Your task to perform on an android device: uninstall "Lyft - Rideshare, Bikes, Scooters & Transit" Image 0: 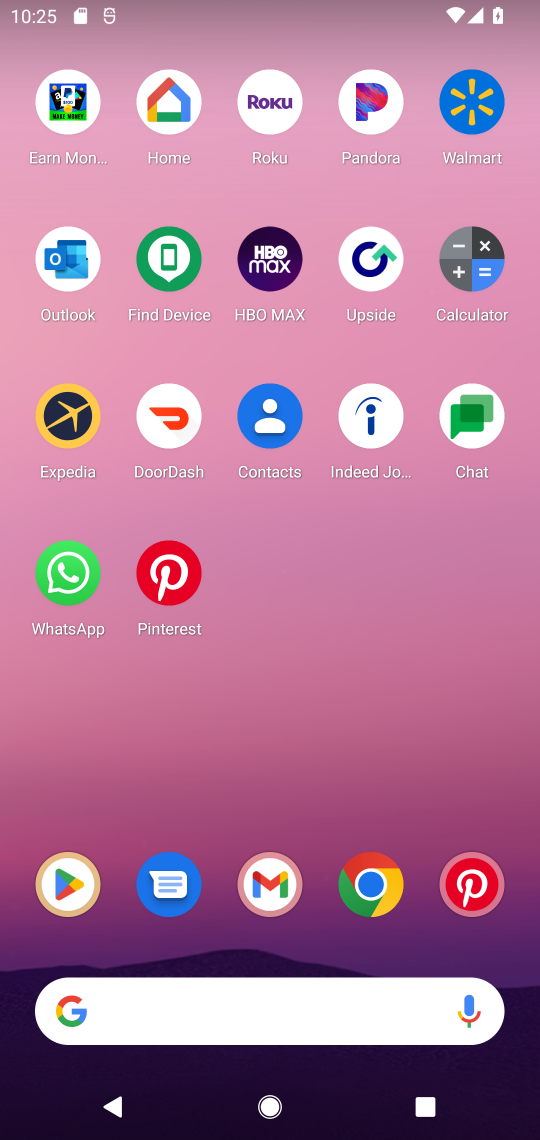
Step 0: click (66, 883)
Your task to perform on an android device: uninstall "Lyft - Rideshare, Bikes, Scooters & Transit" Image 1: 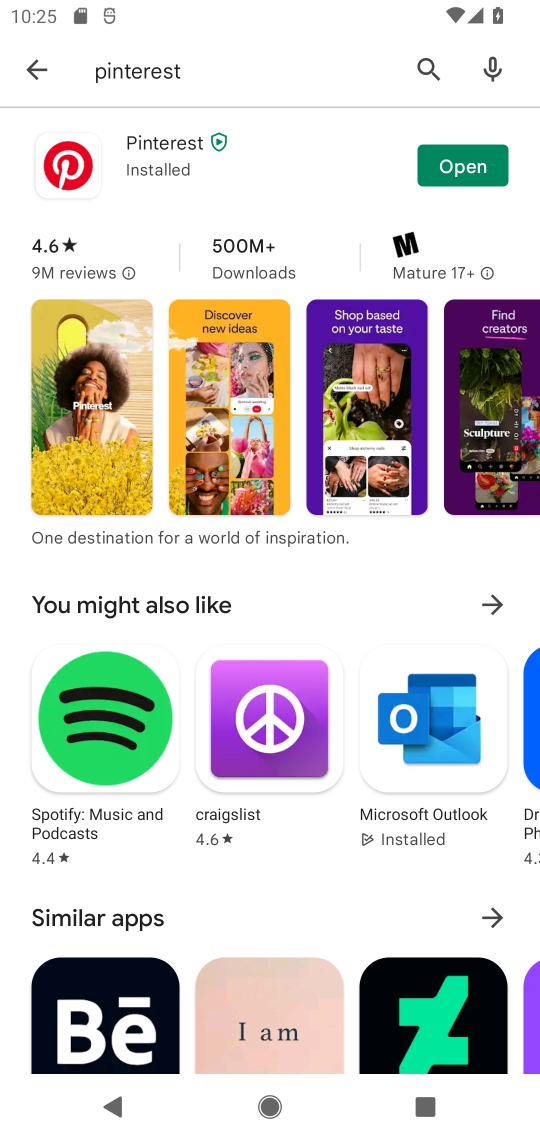
Step 1: click (236, 22)
Your task to perform on an android device: uninstall "Lyft - Rideshare, Bikes, Scooters & Transit" Image 2: 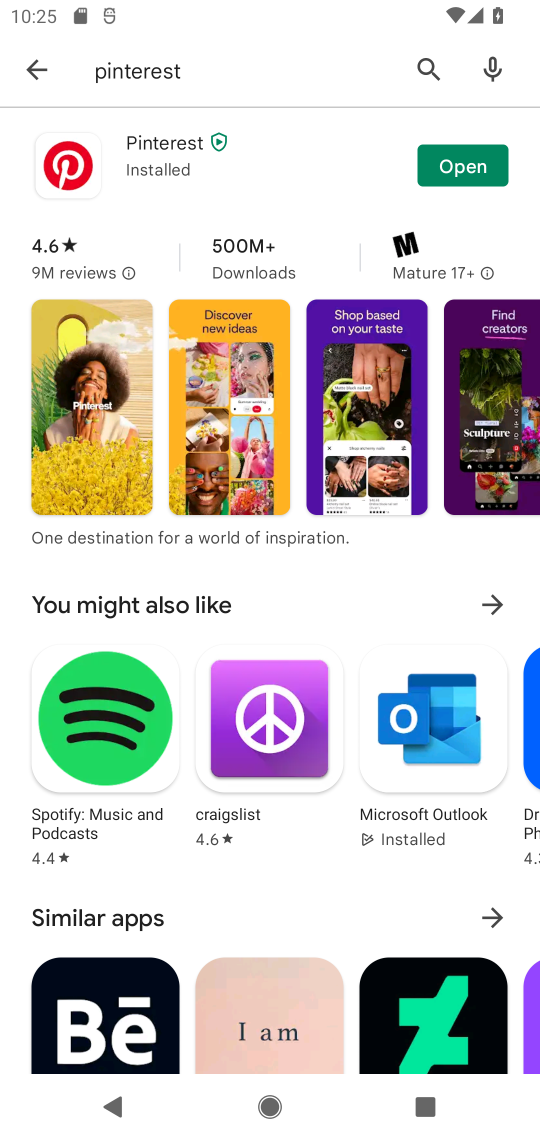
Step 2: click (225, 67)
Your task to perform on an android device: uninstall "Lyft - Rideshare, Bikes, Scooters & Transit" Image 3: 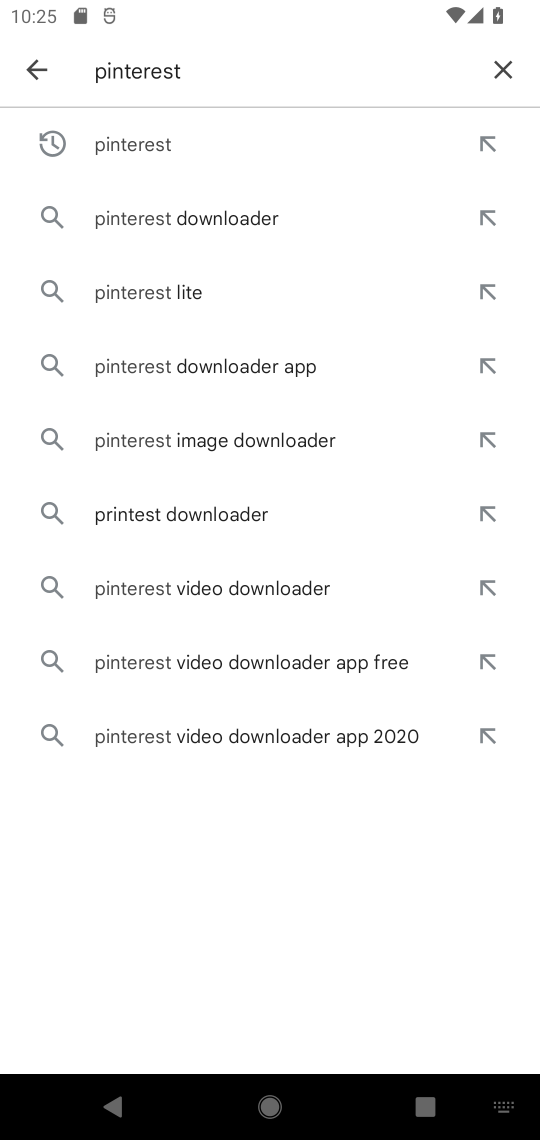
Step 3: click (495, 60)
Your task to perform on an android device: uninstall "Lyft - Rideshare, Bikes, Scooters & Transit" Image 4: 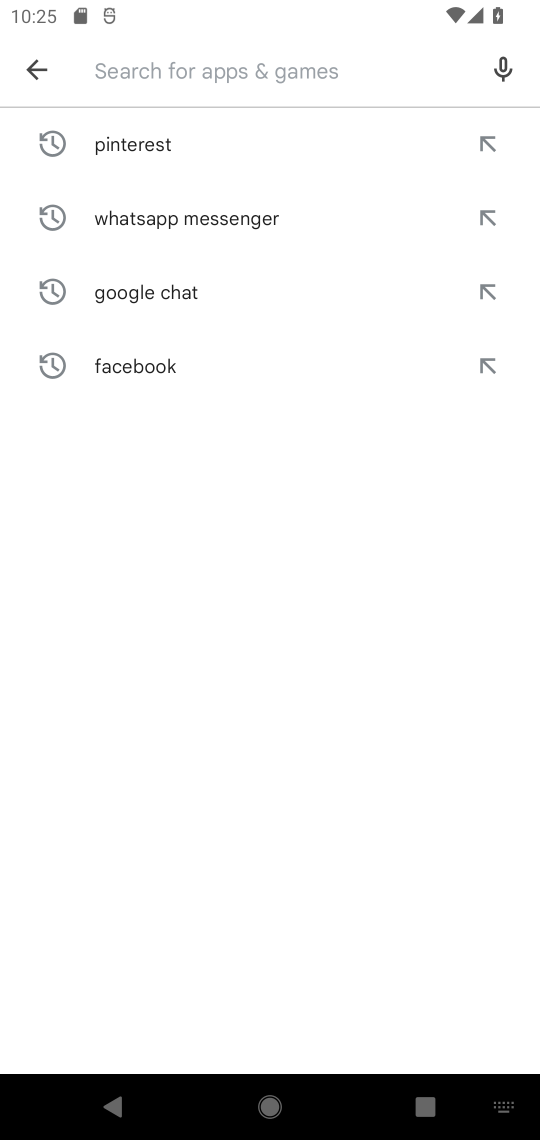
Step 4: type "lyft"
Your task to perform on an android device: uninstall "Lyft - Rideshare, Bikes, Scooters & Transit" Image 5: 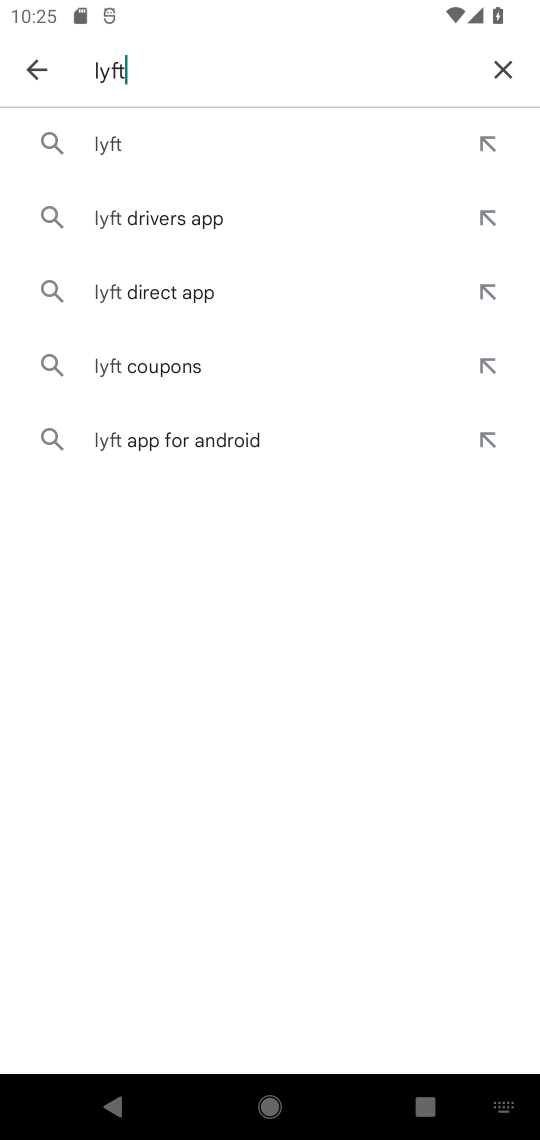
Step 5: click (127, 138)
Your task to perform on an android device: uninstall "Lyft - Rideshare, Bikes, Scooters & Transit" Image 6: 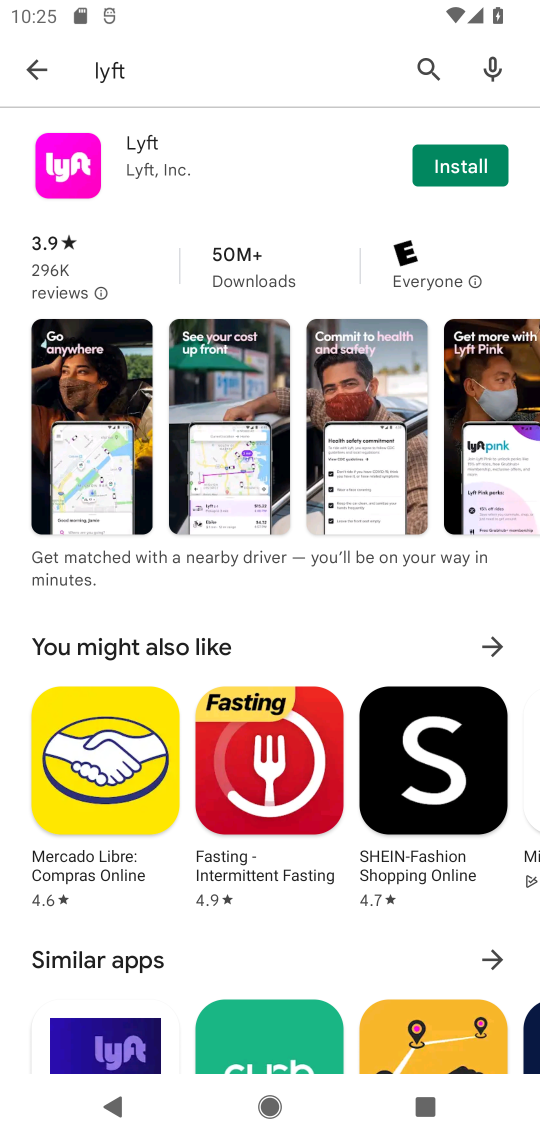
Step 6: task complete